Your task to perform on an android device: Open the Play Movies app and select the watchlist tab. Image 0: 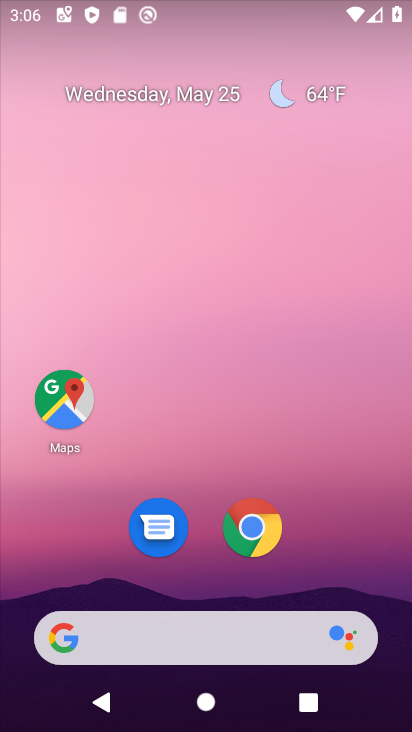
Step 0: drag from (206, 459) to (237, 67)
Your task to perform on an android device: Open the Play Movies app and select the watchlist tab. Image 1: 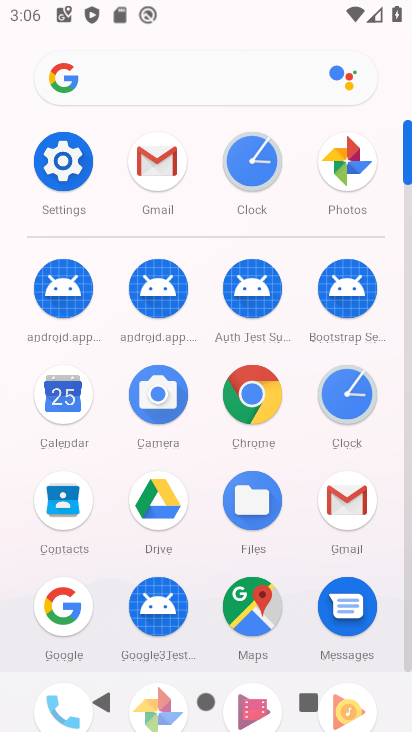
Step 1: drag from (222, 595) to (262, 158)
Your task to perform on an android device: Open the Play Movies app and select the watchlist tab. Image 2: 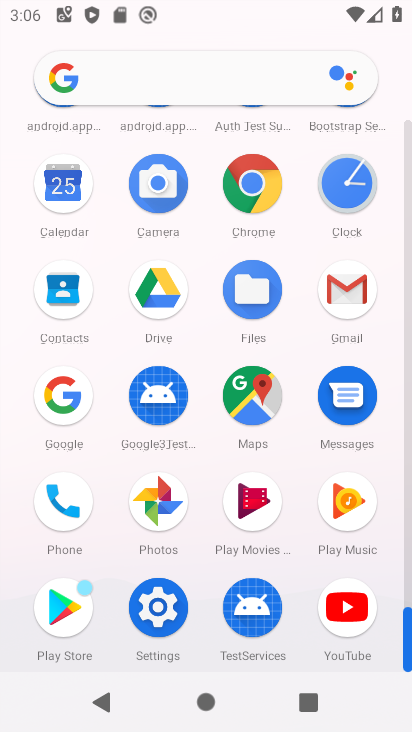
Step 2: click (251, 509)
Your task to perform on an android device: Open the Play Movies app and select the watchlist tab. Image 3: 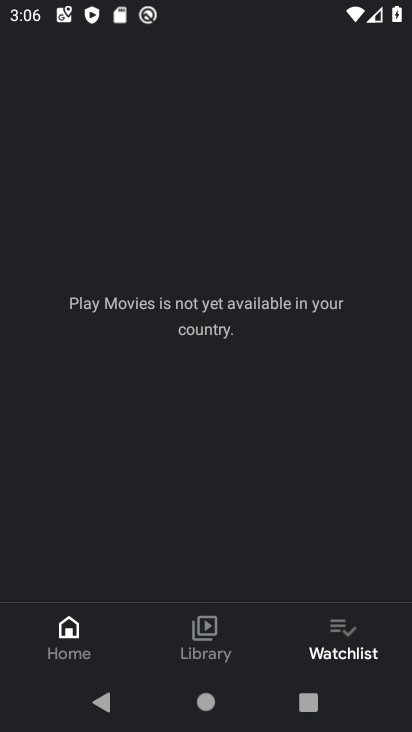
Step 3: click (326, 639)
Your task to perform on an android device: Open the Play Movies app and select the watchlist tab. Image 4: 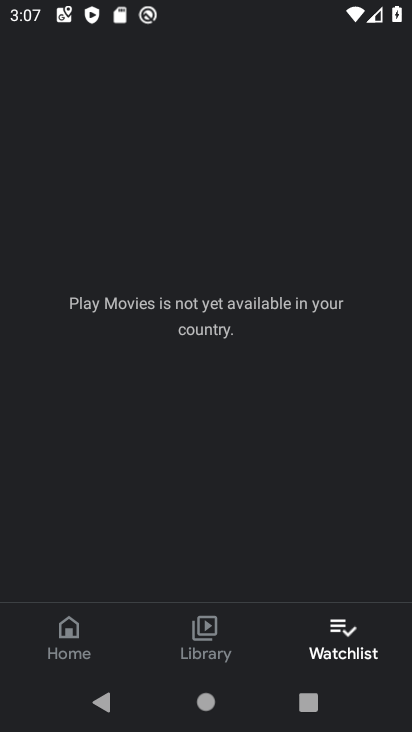
Step 4: task complete